Your task to perform on an android device: Go to CNN.com Image 0: 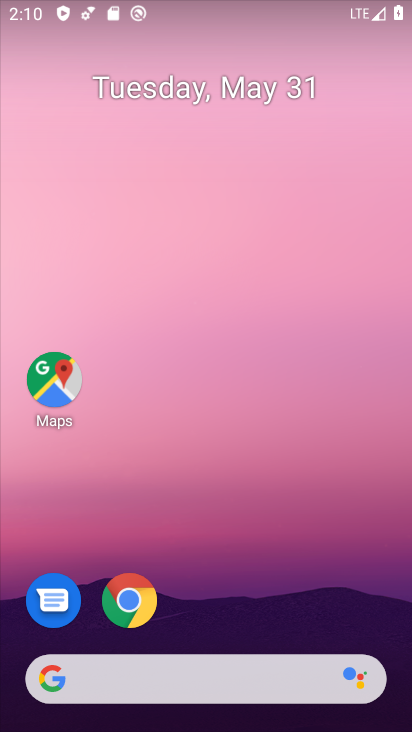
Step 0: press home button
Your task to perform on an android device: Go to CNN.com Image 1: 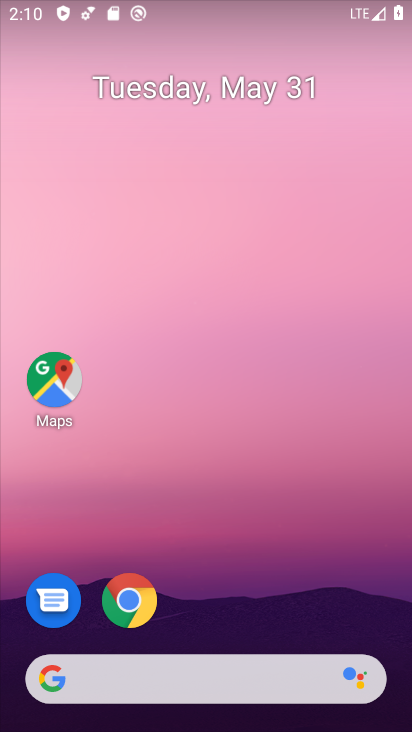
Step 1: click (129, 604)
Your task to perform on an android device: Go to CNN.com Image 2: 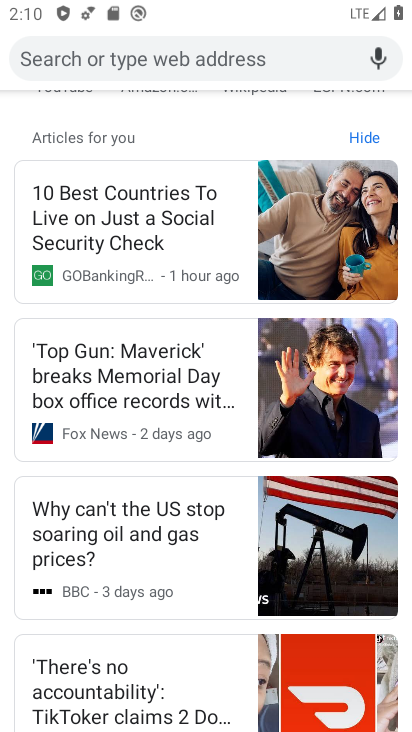
Step 2: drag from (209, 179) to (269, 719)
Your task to perform on an android device: Go to CNN.com Image 3: 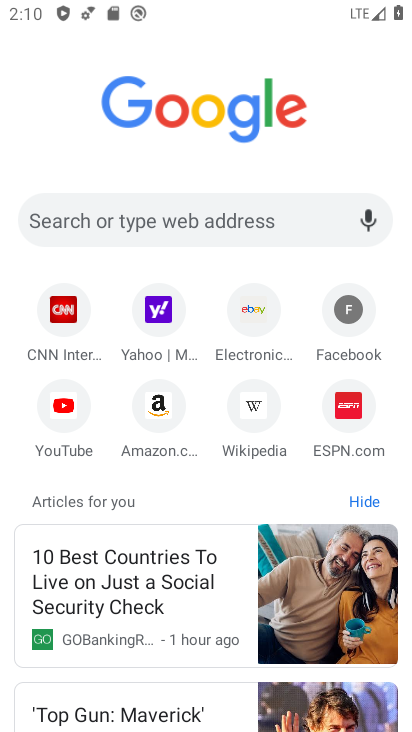
Step 3: click (64, 328)
Your task to perform on an android device: Go to CNN.com Image 4: 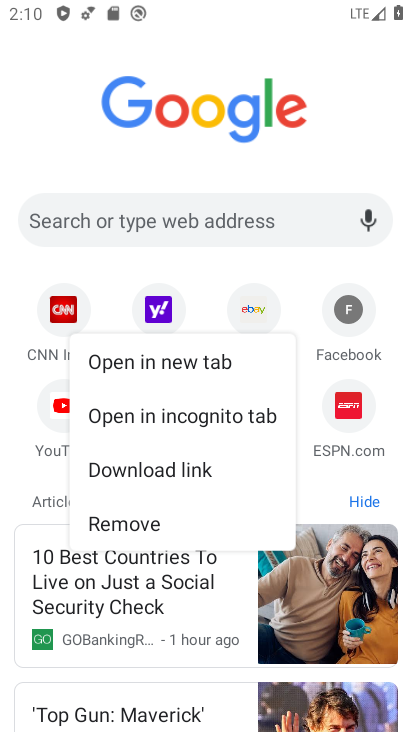
Step 4: click (49, 308)
Your task to perform on an android device: Go to CNN.com Image 5: 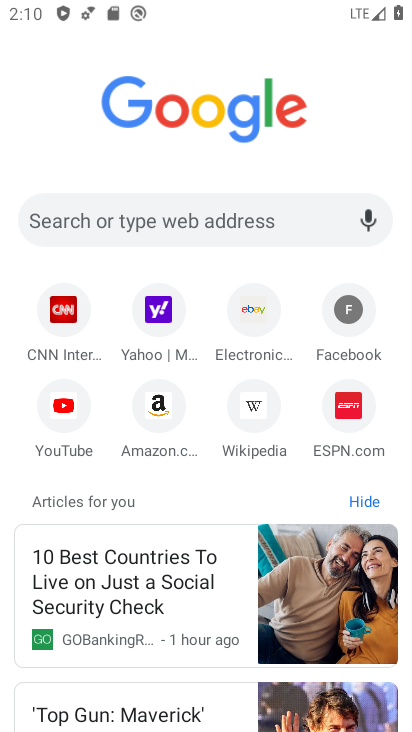
Step 5: click (72, 313)
Your task to perform on an android device: Go to CNN.com Image 6: 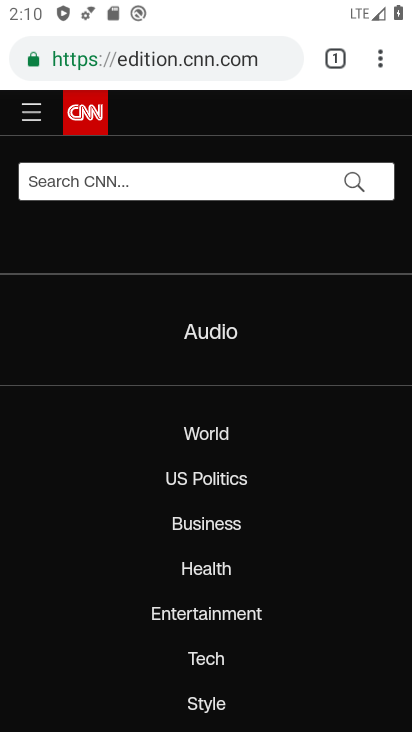
Step 6: click (226, 429)
Your task to perform on an android device: Go to CNN.com Image 7: 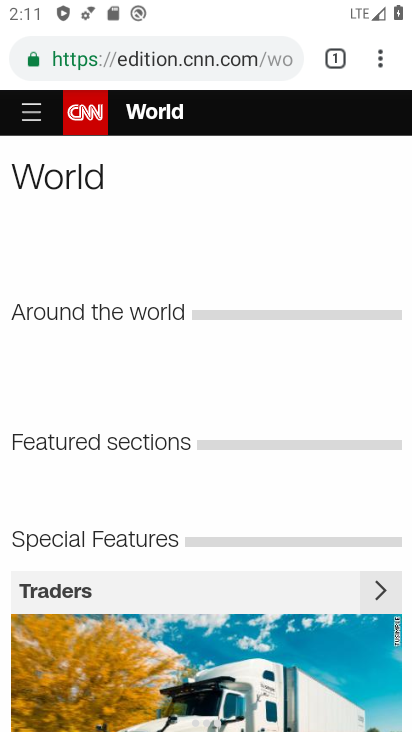
Step 7: task complete